Your task to perform on an android device: Go to sound settings Image 0: 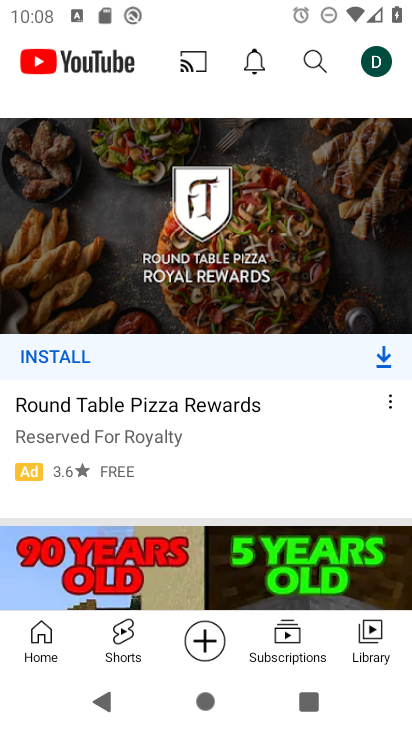
Step 0: press home button
Your task to perform on an android device: Go to sound settings Image 1: 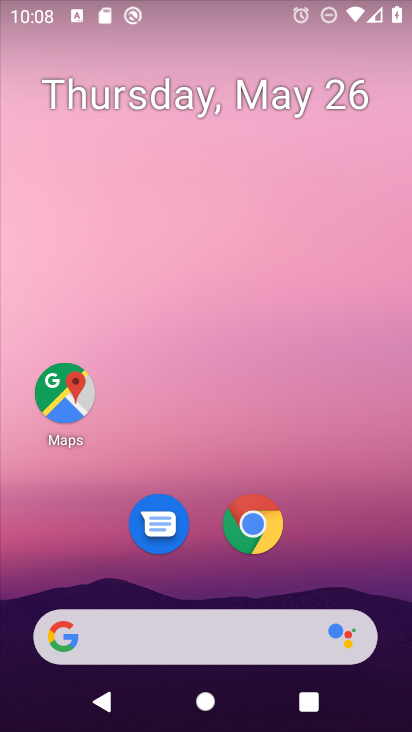
Step 1: drag from (300, 538) to (304, 37)
Your task to perform on an android device: Go to sound settings Image 2: 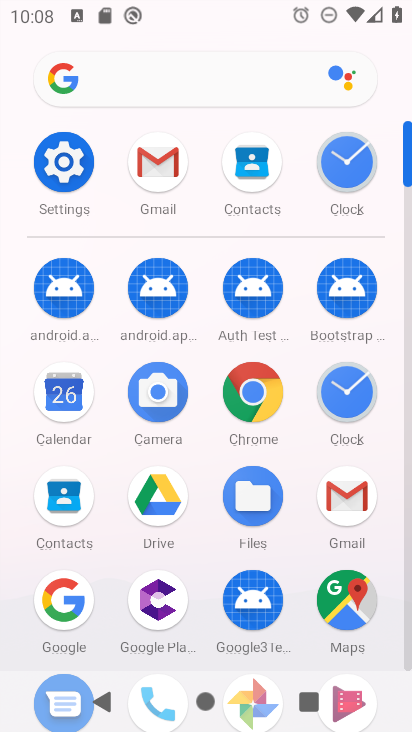
Step 2: click (80, 163)
Your task to perform on an android device: Go to sound settings Image 3: 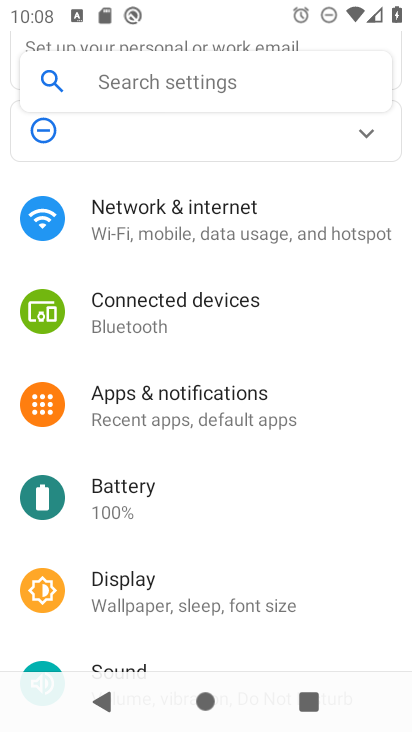
Step 3: drag from (190, 551) to (191, 209)
Your task to perform on an android device: Go to sound settings Image 4: 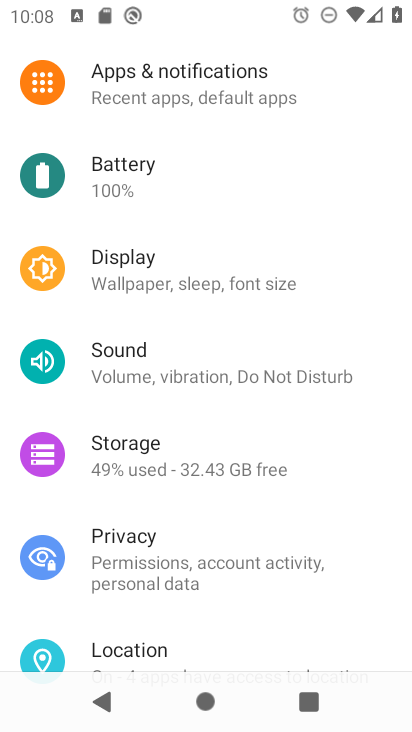
Step 4: click (170, 366)
Your task to perform on an android device: Go to sound settings Image 5: 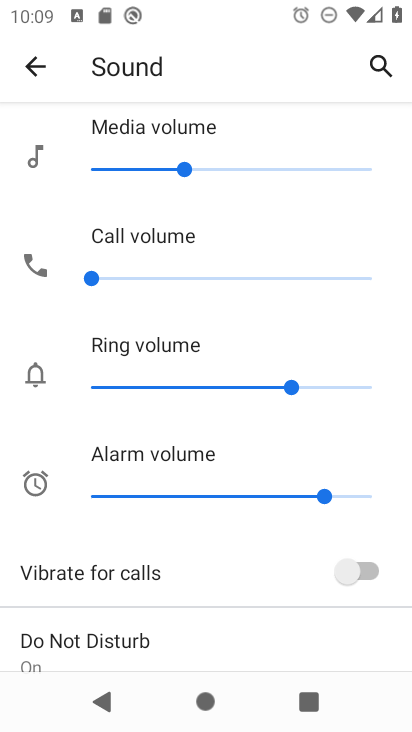
Step 5: task complete